Your task to perform on an android device: Search for bose soundsport free on newegg, select the first entry, and add it to the cart. Image 0: 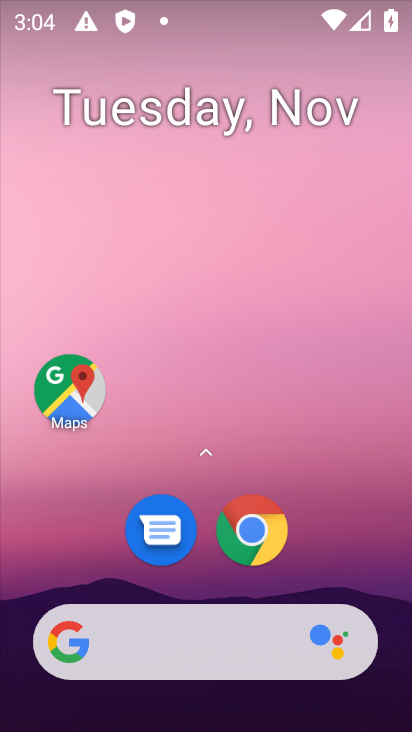
Step 0: drag from (197, 694) to (271, 168)
Your task to perform on an android device: Search for bose soundsport free on newegg, select the first entry, and add it to the cart. Image 1: 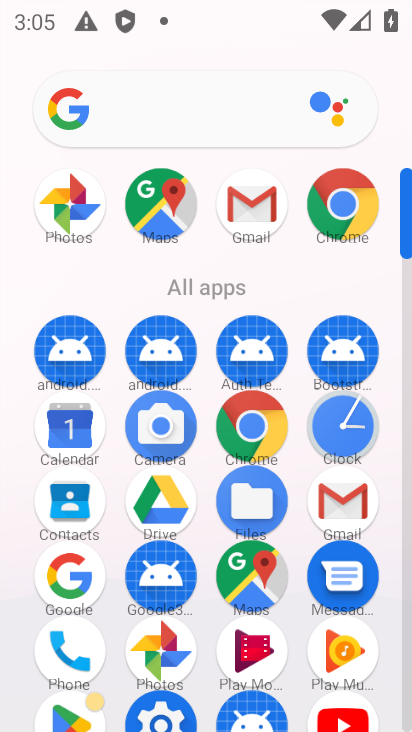
Step 1: click (261, 419)
Your task to perform on an android device: Search for bose soundsport free on newegg, select the first entry, and add it to the cart. Image 2: 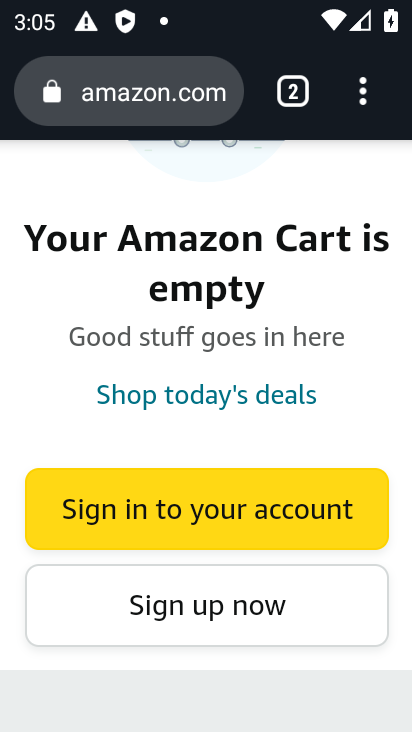
Step 2: drag from (168, 346) to (134, 520)
Your task to perform on an android device: Search for bose soundsport free on newegg, select the first entry, and add it to the cart. Image 3: 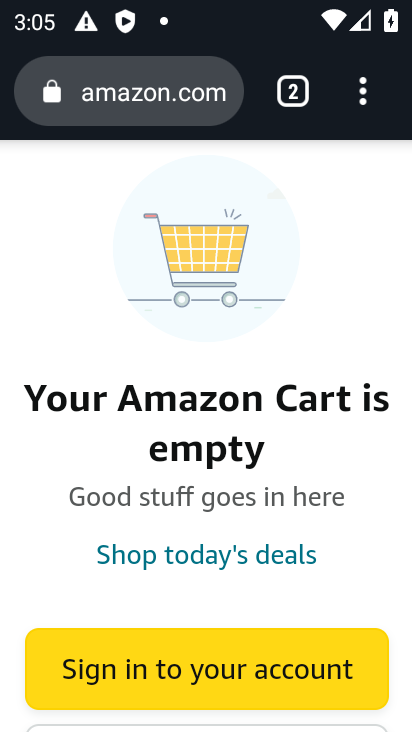
Step 3: click (131, 103)
Your task to perform on an android device: Search for bose soundsport free on newegg, select the first entry, and add it to the cart. Image 4: 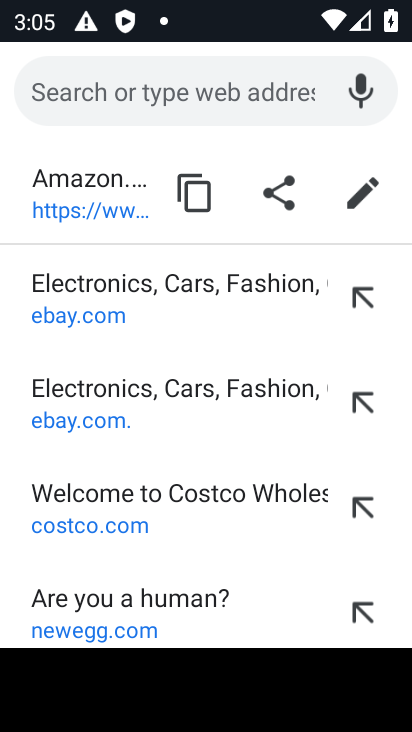
Step 4: type "newegg"
Your task to perform on an android device: Search for bose soundsport free on newegg, select the first entry, and add it to the cart. Image 5: 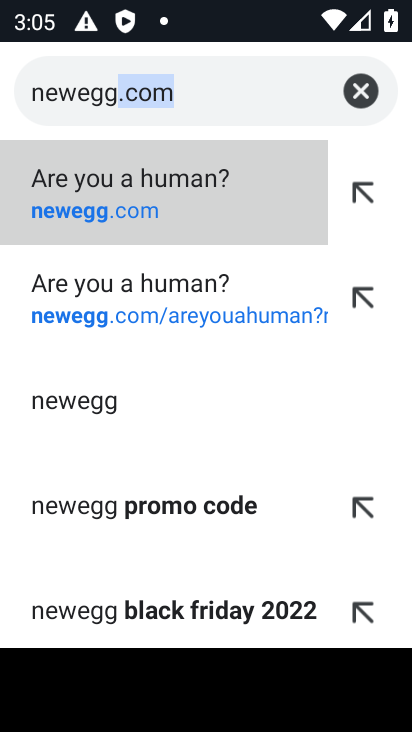
Step 5: click (61, 212)
Your task to perform on an android device: Search for bose soundsport free on newegg, select the first entry, and add it to the cart. Image 6: 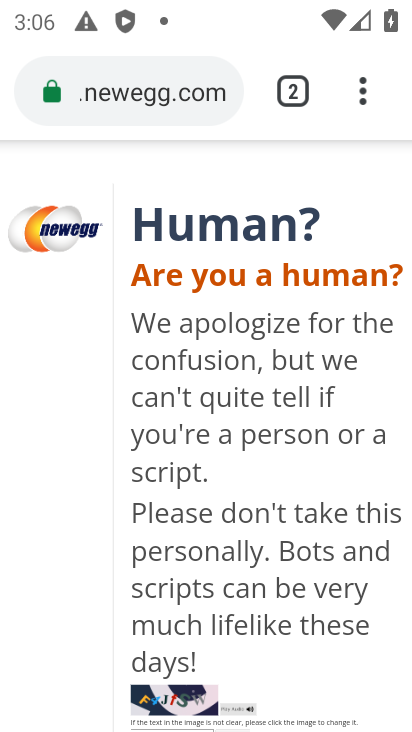
Step 6: click (149, 88)
Your task to perform on an android device: Search for bose soundsport free on newegg, select the first entry, and add it to the cart. Image 7: 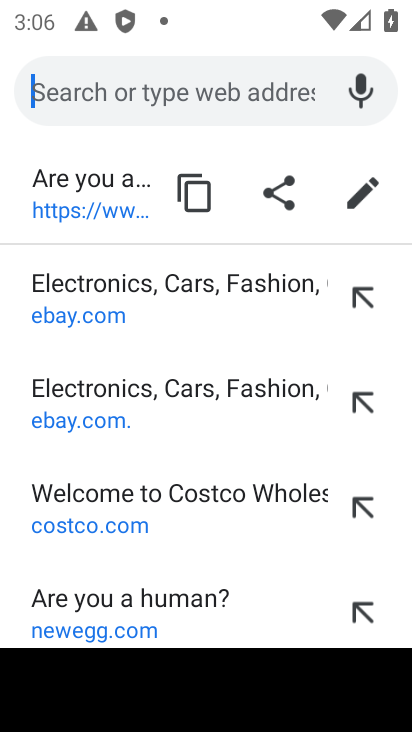
Step 7: type " newegg"
Your task to perform on an android device: Search for bose soundsport free on newegg, select the first entry, and add it to the cart. Image 8: 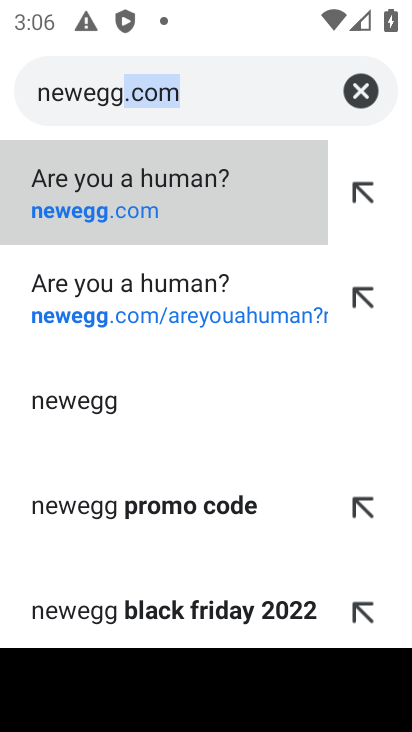
Step 8: click (72, 214)
Your task to perform on an android device: Search for bose soundsport free on newegg, select the first entry, and add it to the cart. Image 9: 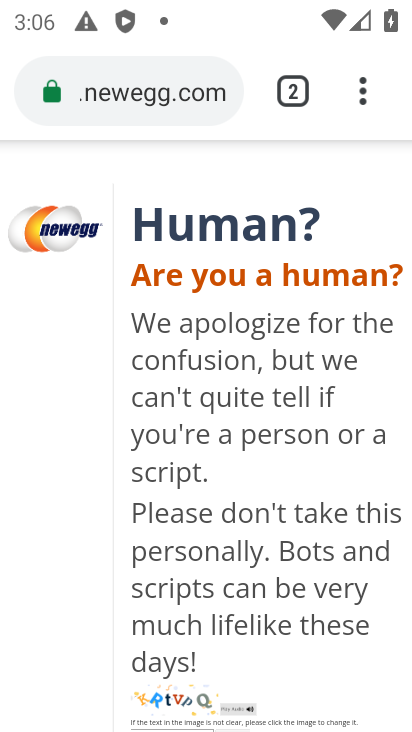
Step 9: task complete